Your task to perform on an android device: delete browsing data in the chrome app Image 0: 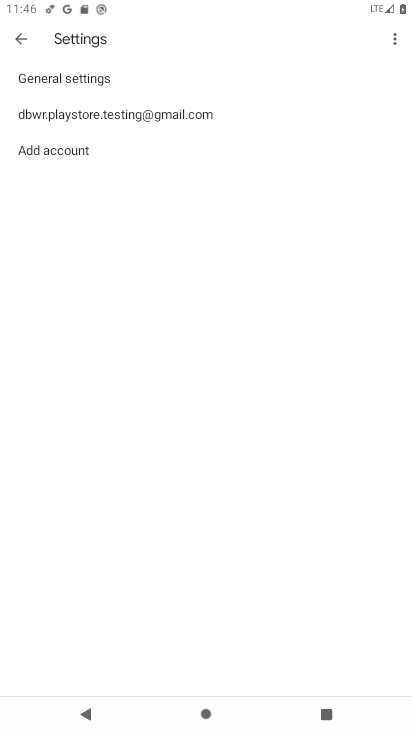
Step 0: press home button
Your task to perform on an android device: delete browsing data in the chrome app Image 1: 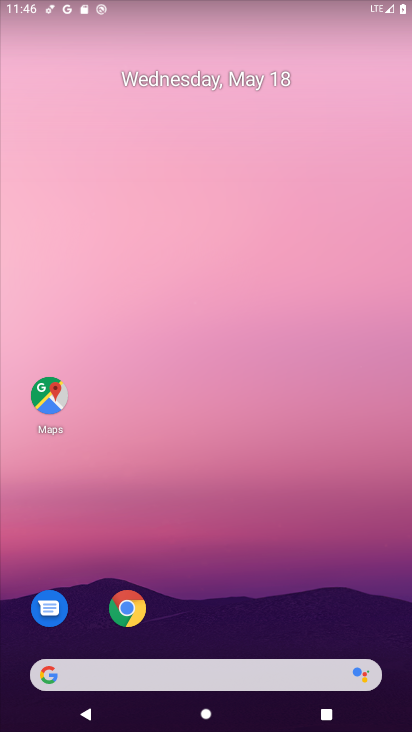
Step 1: click (136, 614)
Your task to perform on an android device: delete browsing data in the chrome app Image 2: 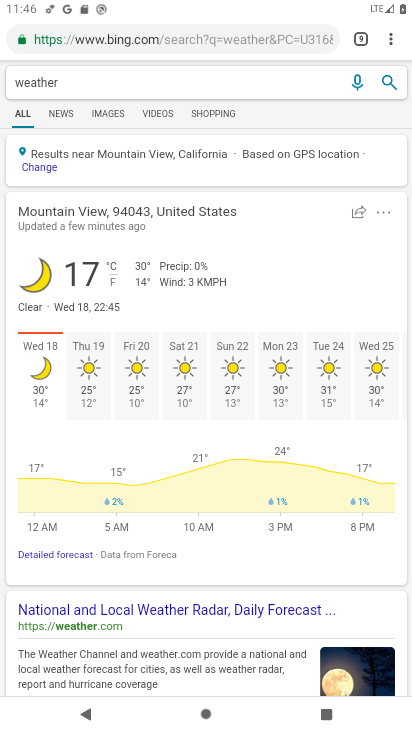
Step 2: click (389, 41)
Your task to perform on an android device: delete browsing data in the chrome app Image 3: 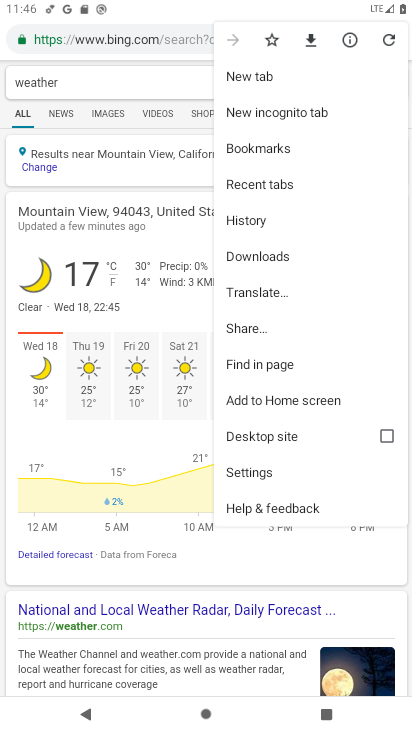
Step 3: click (246, 217)
Your task to perform on an android device: delete browsing data in the chrome app Image 4: 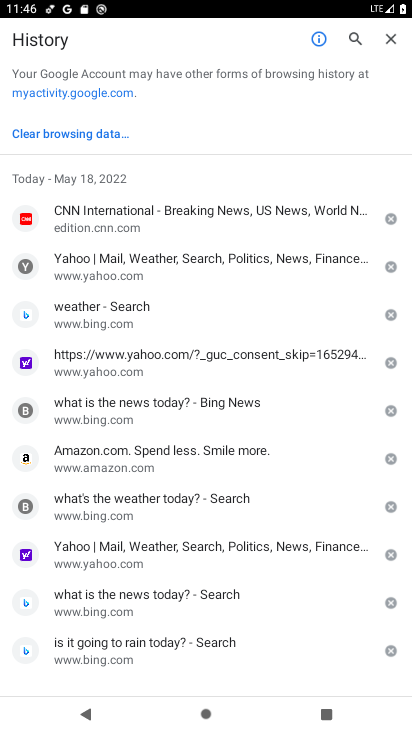
Step 4: click (65, 137)
Your task to perform on an android device: delete browsing data in the chrome app Image 5: 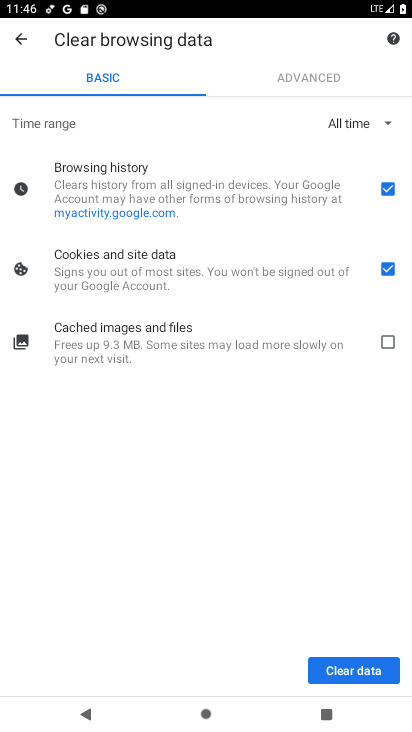
Step 5: click (348, 663)
Your task to perform on an android device: delete browsing data in the chrome app Image 6: 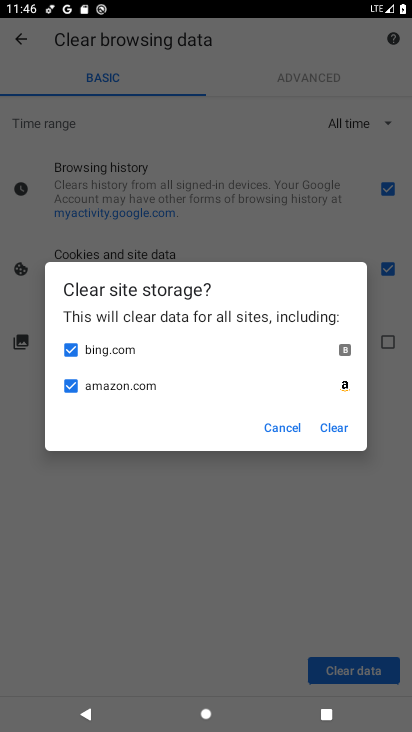
Step 6: click (332, 425)
Your task to perform on an android device: delete browsing data in the chrome app Image 7: 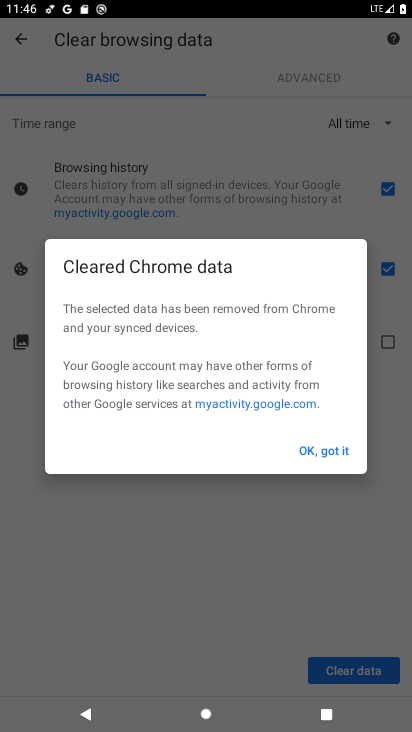
Step 7: click (317, 448)
Your task to perform on an android device: delete browsing data in the chrome app Image 8: 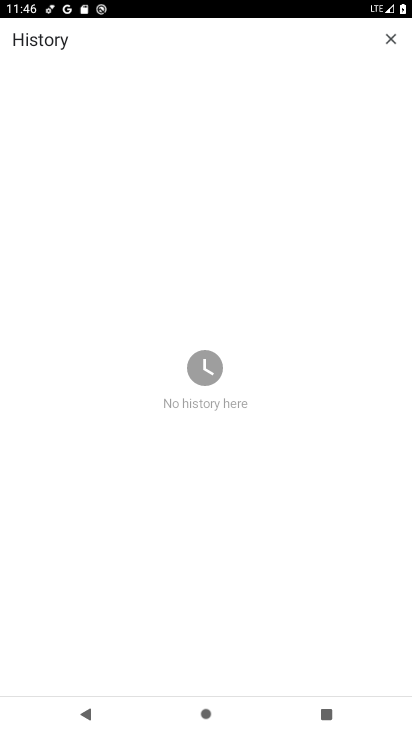
Step 8: task complete